Your task to perform on an android device: Open the map Image 0: 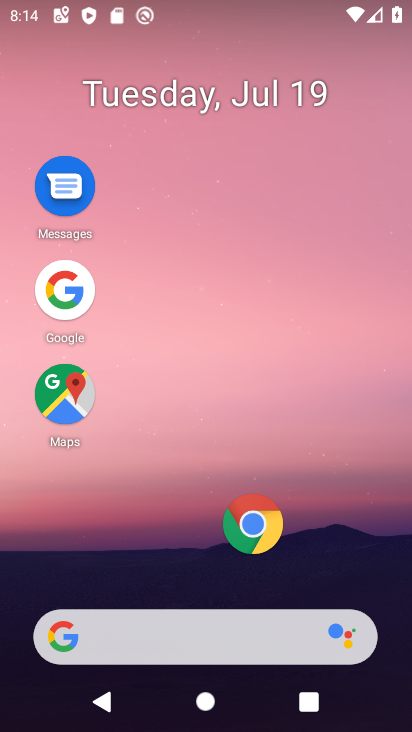
Step 0: click (76, 395)
Your task to perform on an android device: Open the map Image 1: 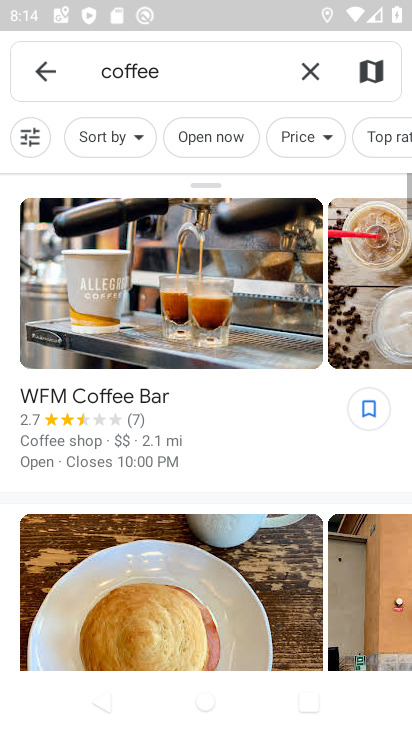
Step 1: click (36, 80)
Your task to perform on an android device: Open the map Image 2: 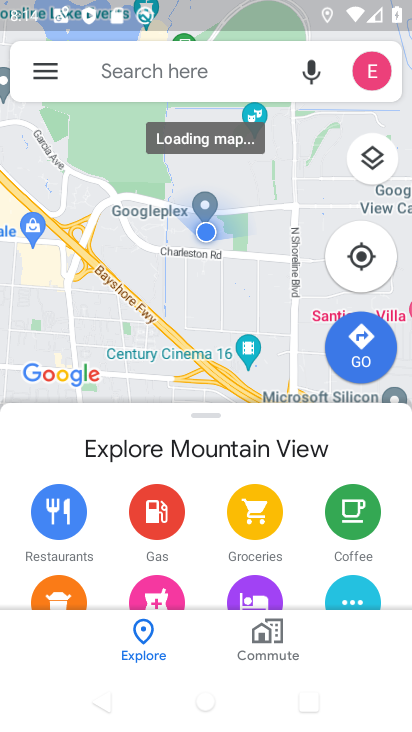
Step 2: task complete